Your task to perform on an android device: turn pop-ups on in chrome Image 0: 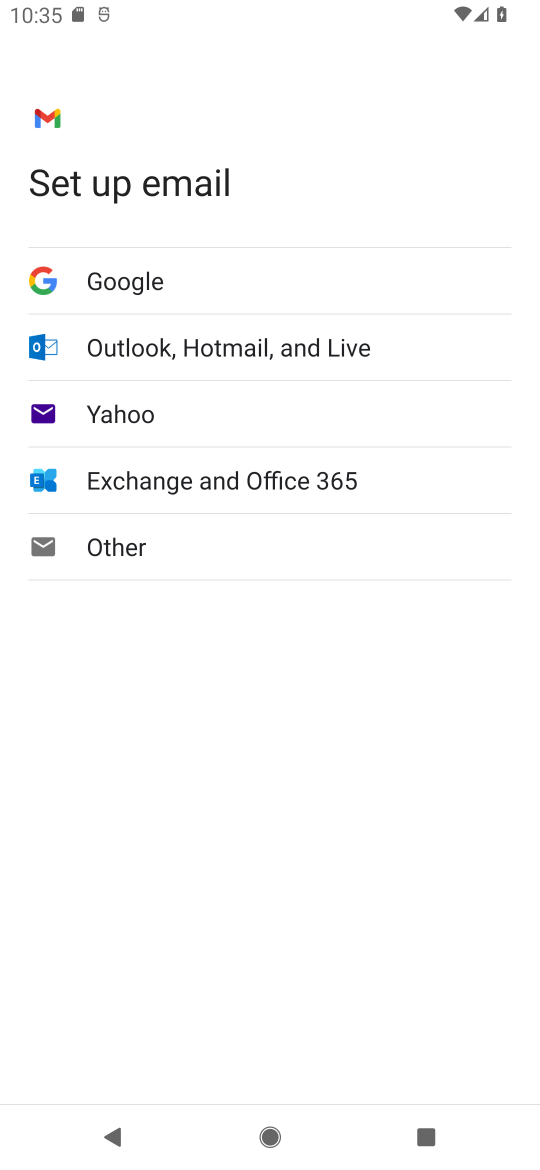
Step 0: press home button
Your task to perform on an android device: turn pop-ups on in chrome Image 1: 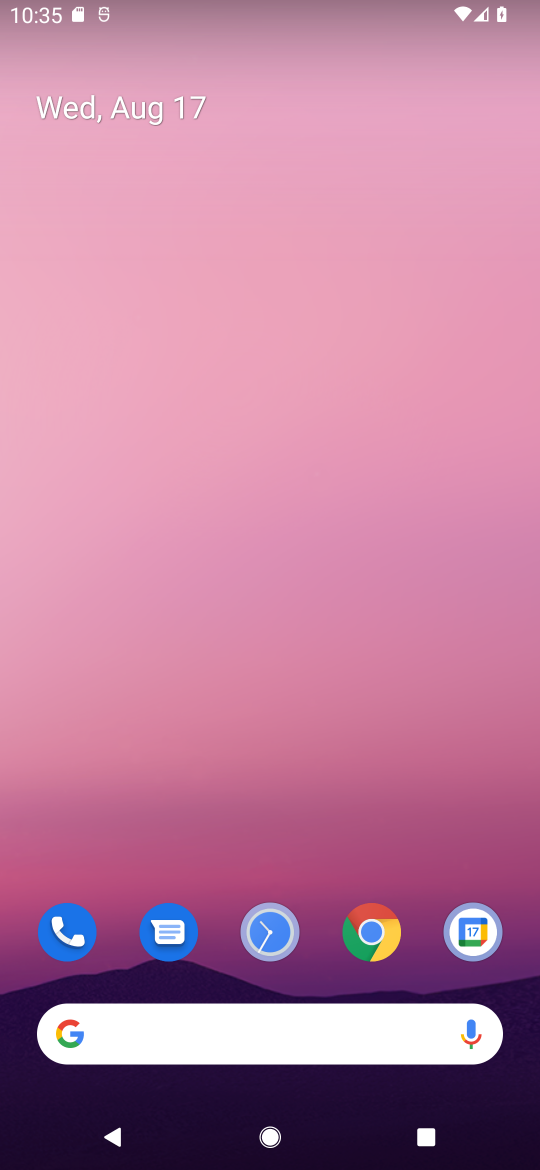
Step 1: click (365, 933)
Your task to perform on an android device: turn pop-ups on in chrome Image 2: 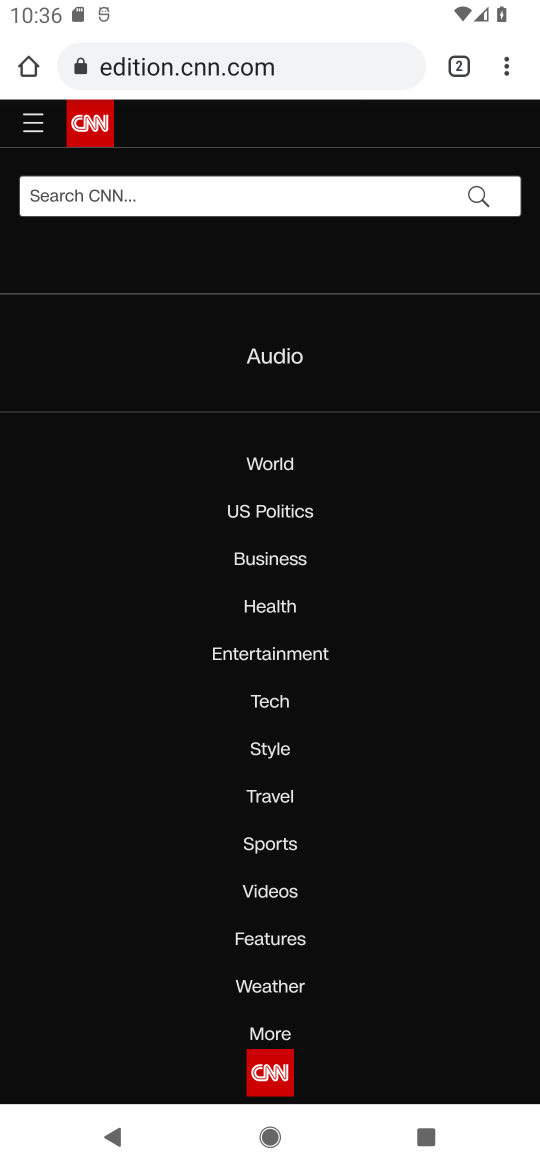
Step 2: click (506, 68)
Your task to perform on an android device: turn pop-ups on in chrome Image 3: 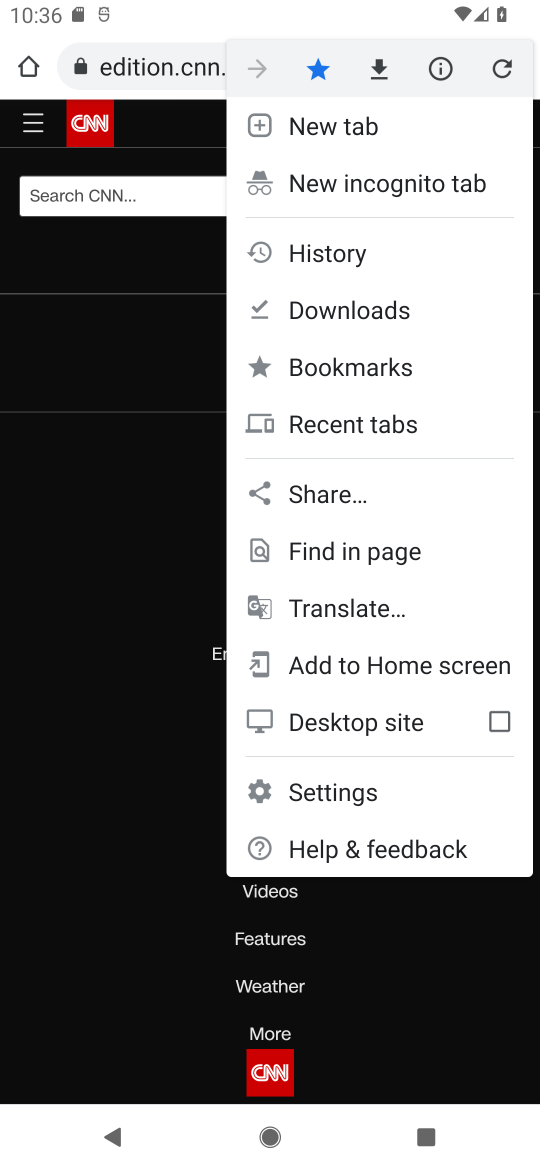
Step 3: click (329, 799)
Your task to perform on an android device: turn pop-ups on in chrome Image 4: 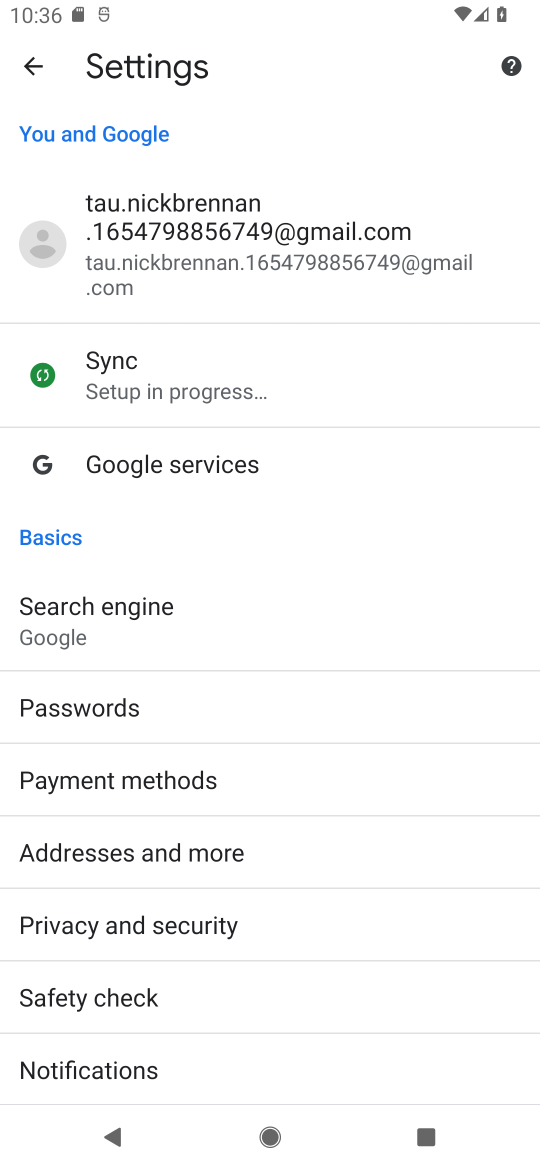
Step 4: drag from (147, 1027) to (148, 424)
Your task to perform on an android device: turn pop-ups on in chrome Image 5: 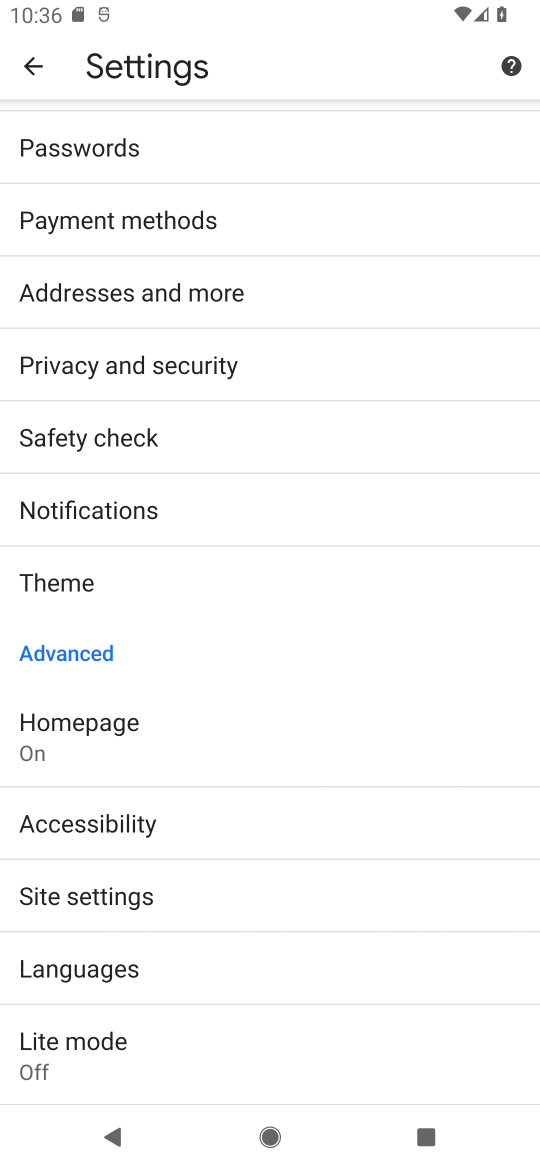
Step 5: click (81, 909)
Your task to perform on an android device: turn pop-ups on in chrome Image 6: 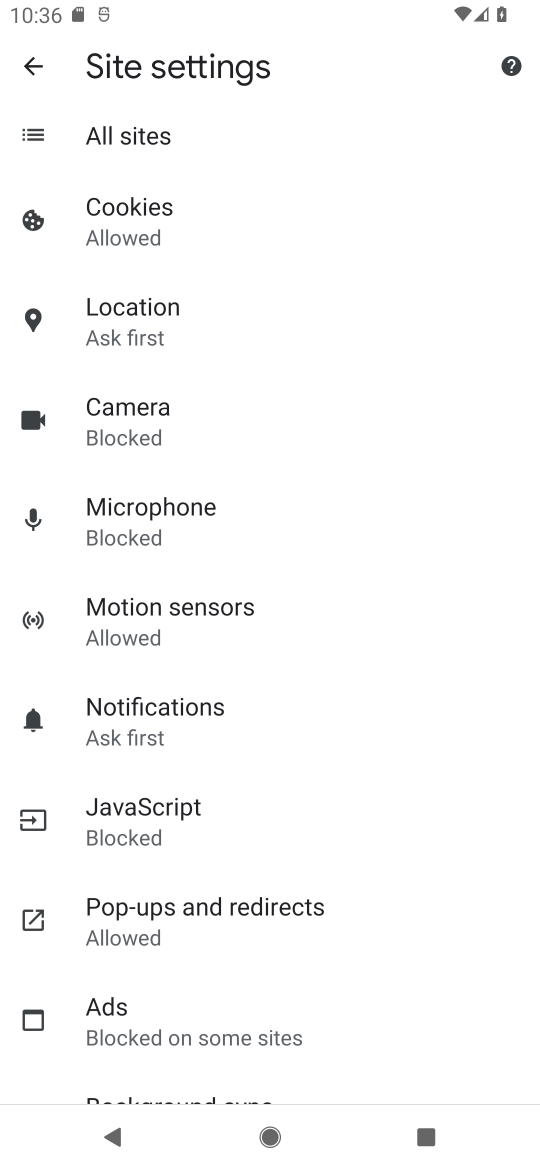
Step 6: click (112, 910)
Your task to perform on an android device: turn pop-ups on in chrome Image 7: 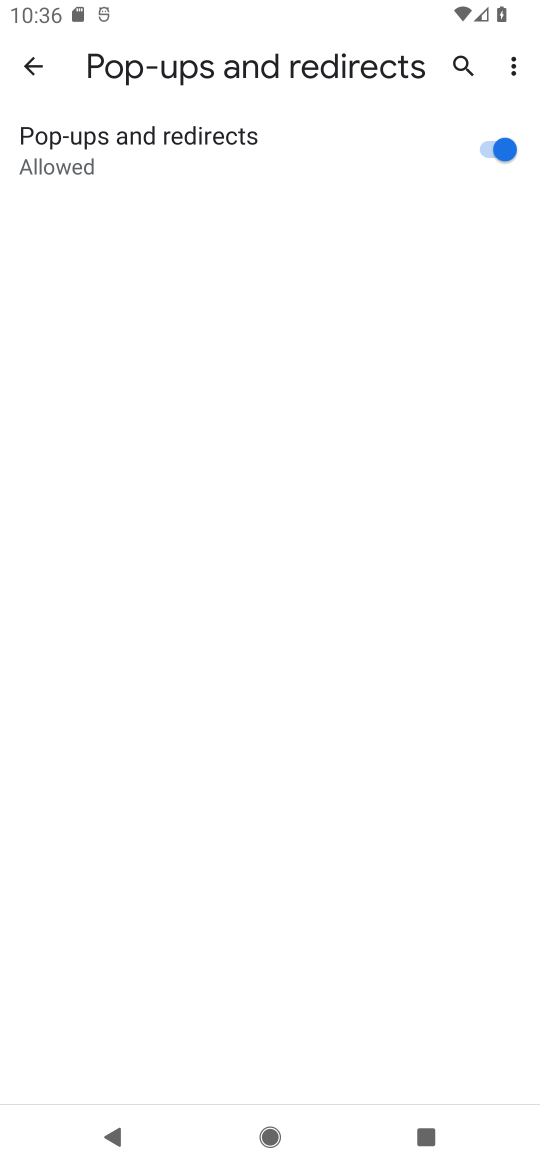
Step 7: task complete